Your task to perform on an android device: change your default location settings in chrome Image 0: 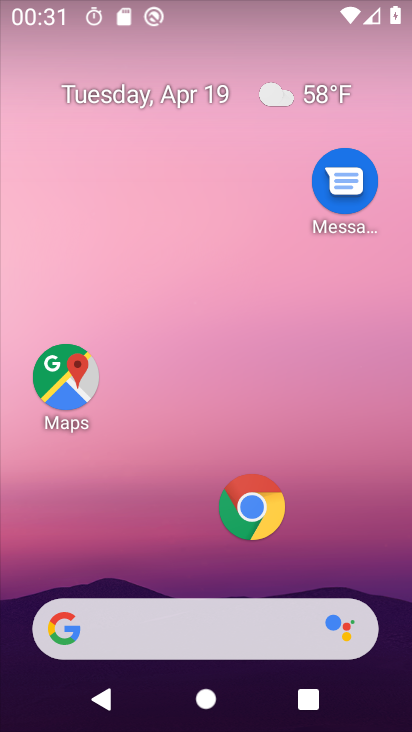
Step 0: click (266, 502)
Your task to perform on an android device: change your default location settings in chrome Image 1: 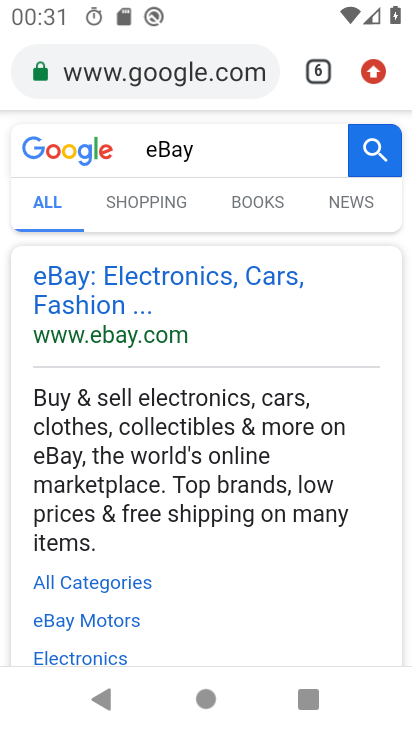
Step 1: click (373, 82)
Your task to perform on an android device: change your default location settings in chrome Image 2: 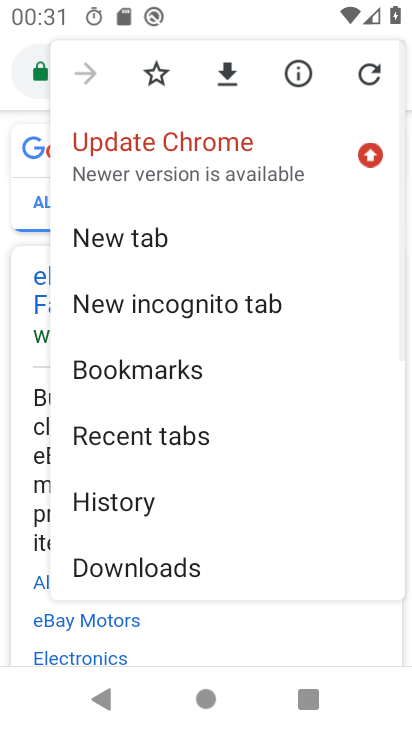
Step 2: drag from (150, 522) to (217, 174)
Your task to perform on an android device: change your default location settings in chrome Image 3: 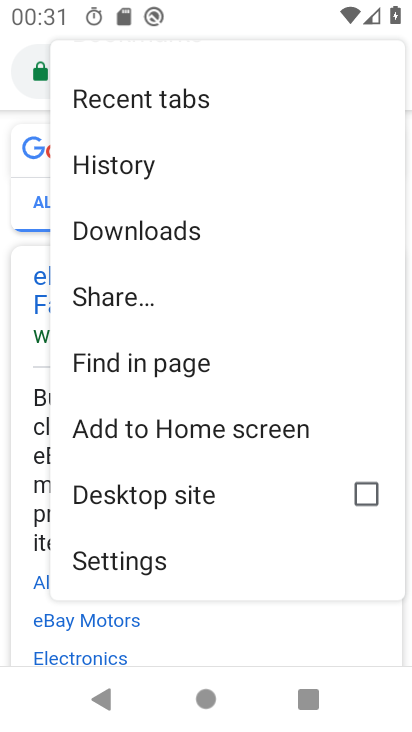
Step 3: click (125, 567)
Your task to perform on an android device: change your default location settings in chrome Image 4: 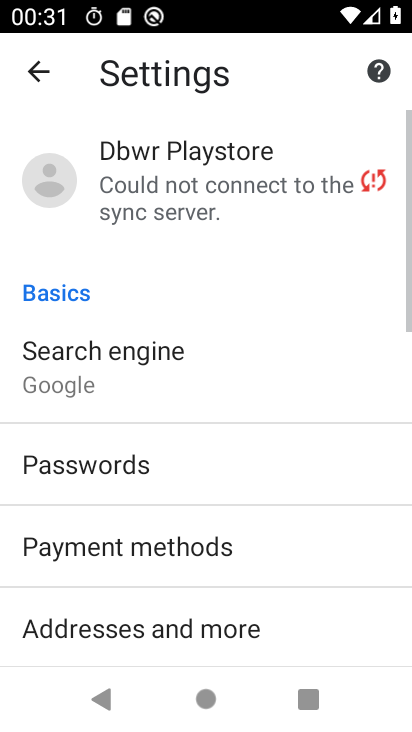
Step 4: drag from (110, 547) to (202, 186)
Your task to perform on an android device: change your default location settings in chrome Image 5: 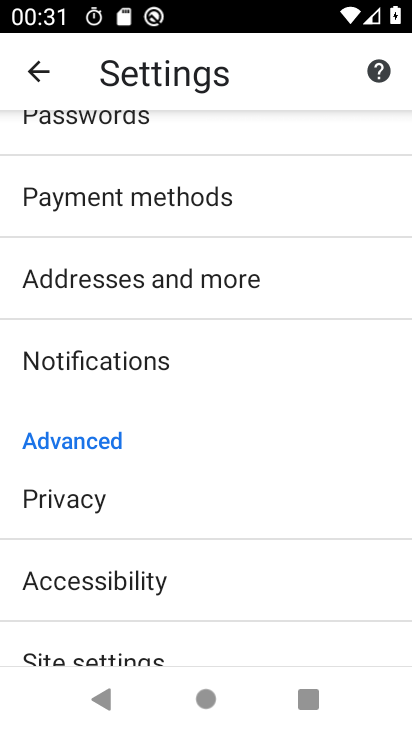
Step 5: drag from (92, 548) to (154, 297)
Your task to perform on an android device: change your default location settings in chrome Image 6: 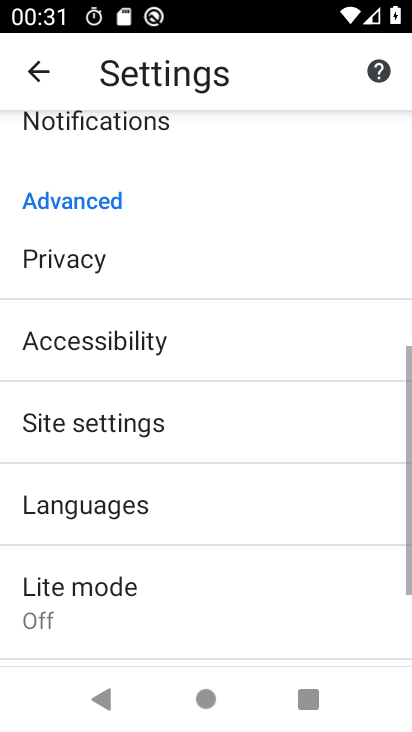
Step 6: click (115, 427)
Your task to perform on an android device: change your default location settings in chrome Image 7: 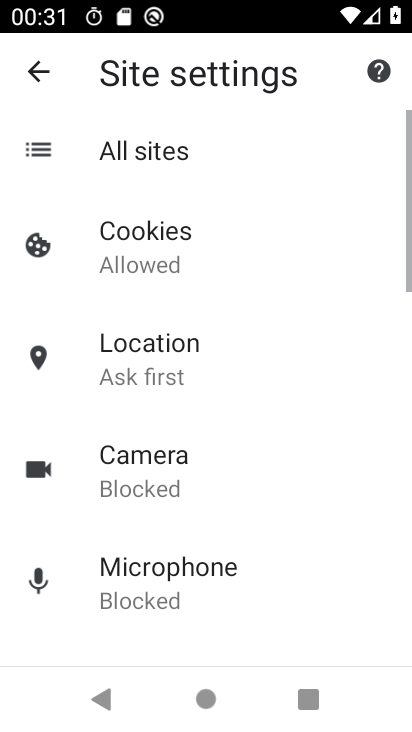
Step 7: drag from (167, 514) to (233, 257)
Your task to perform on an android device: change your default location settings in chrome Image 8: 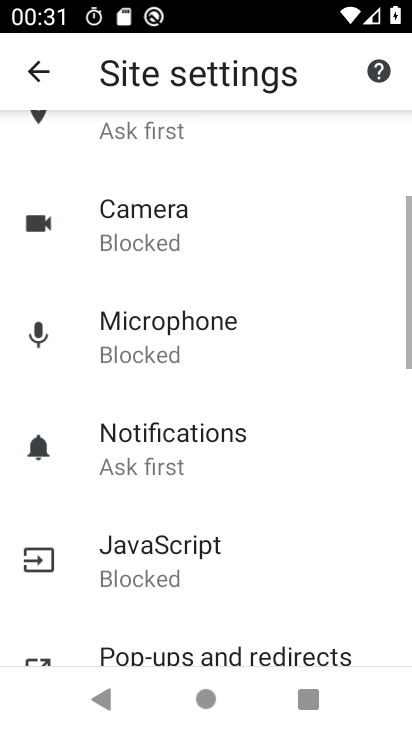
Step 8: drag from (159, 535) to (213, 217)
Your task to perform on an android device: change your default location settings in chrome Image 9: 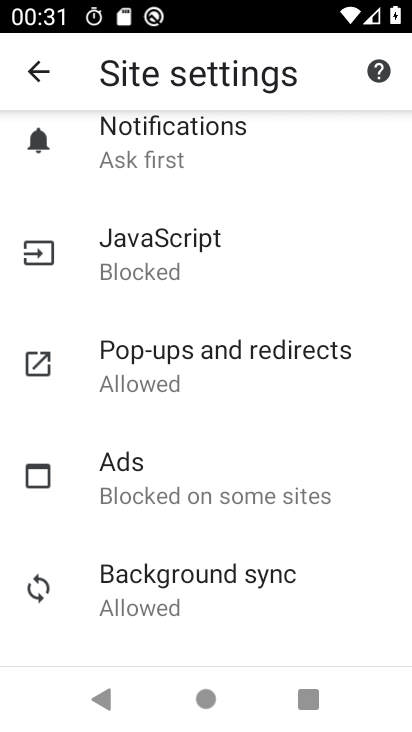
Step 9: drag from (145, 545) to (232, 244)
Your task to perform on an android device: change your default location settings in chrome Image 10: 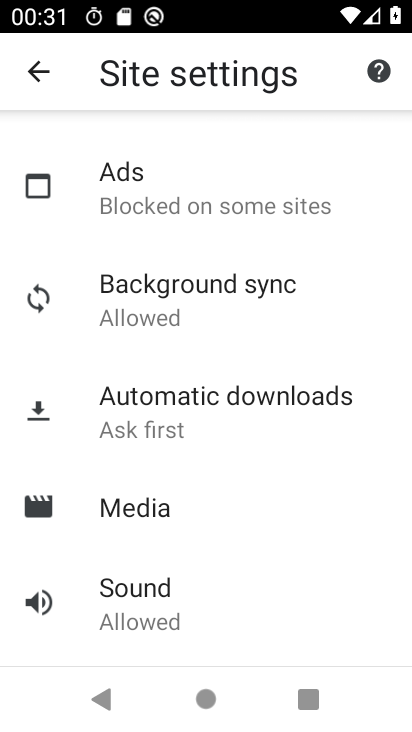
Step 10: drag from (267, 257) to (204, 627)
Your task to perform on an android device: change your default location settings in chrome Image 11: 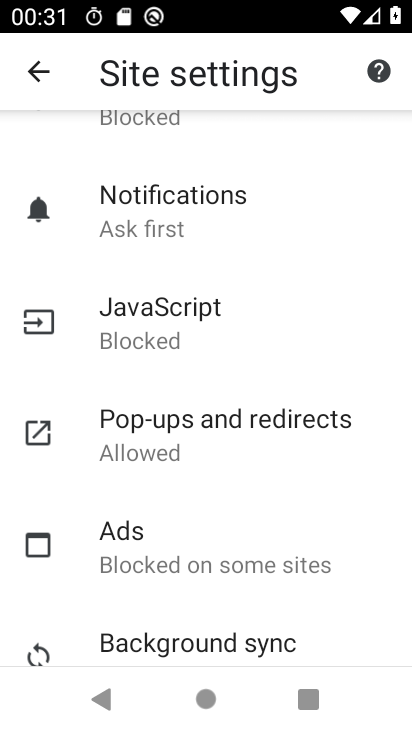
Step 11: drag from (219, 245) to (149, 688)
Your task to perform on an android device: change your default location settings in chrome Image 12: 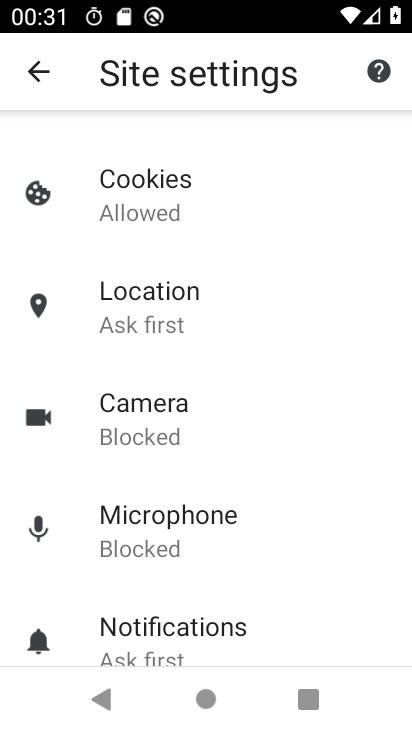
Step 12: click (135, 309)
Your task to perform on an android device: change your default location settings in chrome Image 13: 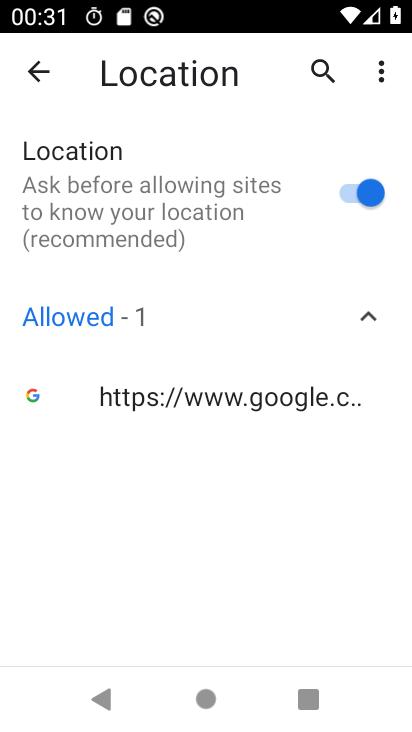
Step 13: click (336, 190)
Your task to perform on an android device: change your default location settings in chrome Image 14: 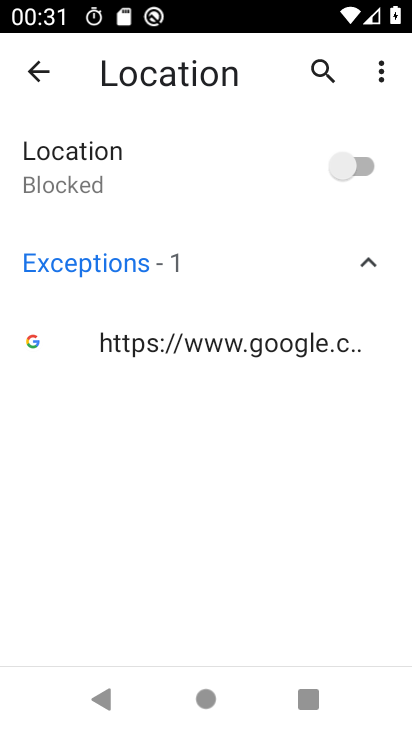
Step 14: task complete